Your task to perform on an android device: Open Amazon Image 0: 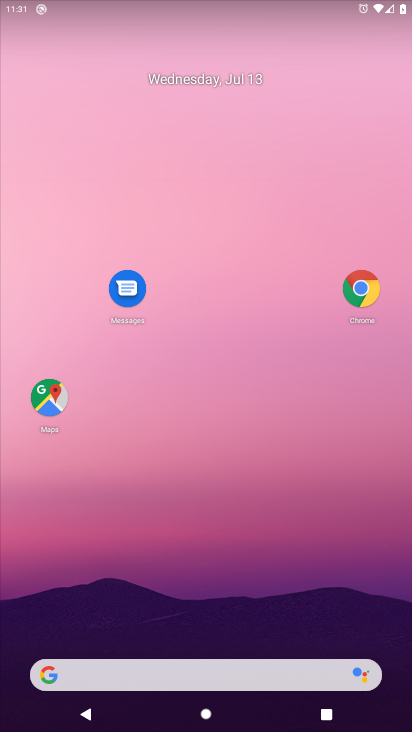
Step 0: click (124, 674)
Your task to perform on an android device: Open Amazon Image 1: 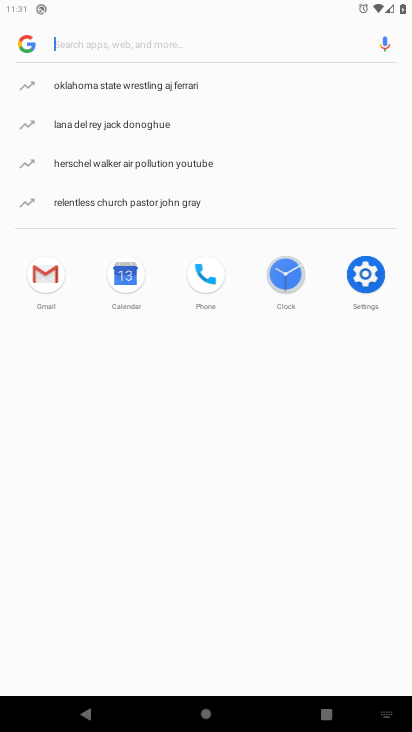
Step 1: type "Amazon"
Your task to perform on an android device: Open Amazon Image 2: 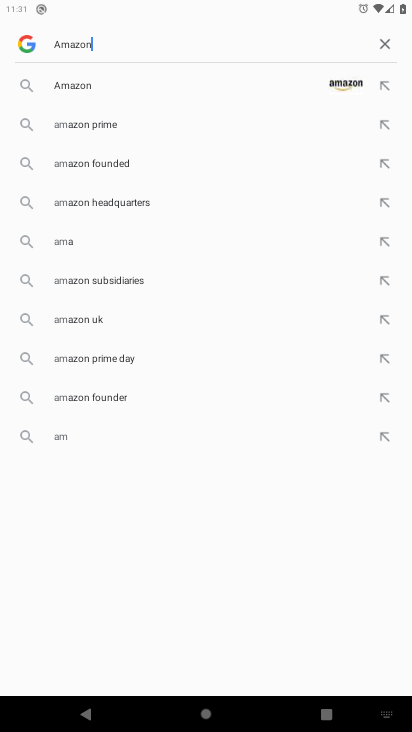
Step 2: type ""
Your task to perform on an android device: Open Amazon Image 3: 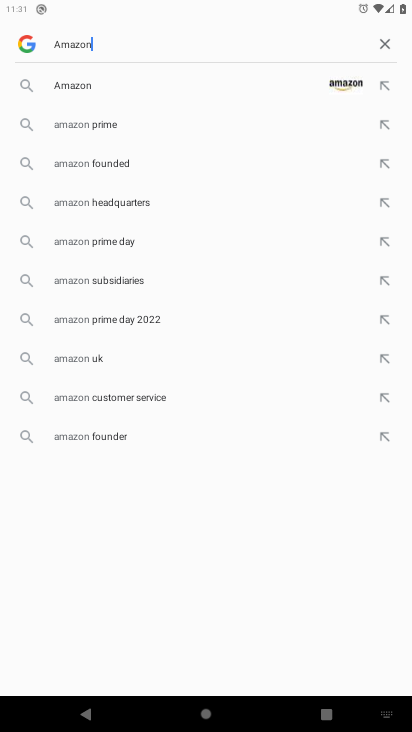
Step 3: click (97, 80)
Your task to perform on an android device: Open Amazon Image 4: 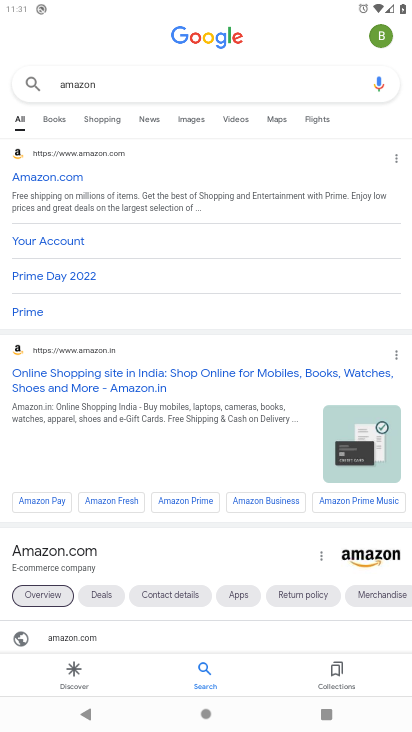
Step 4: task complete